Your task to perform on an android device: turn off smart reply in the gmail app Image 0: 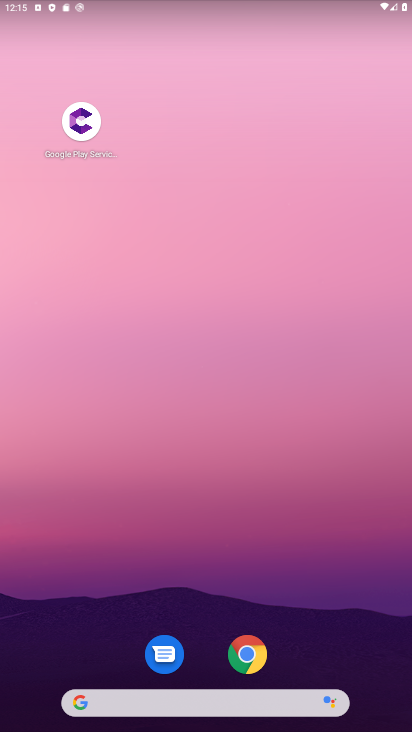
Step 0: drag from (200, 631) to (192, 159)
Your task to perform on an android device: turn off smart reply in the gmail app Image 1: 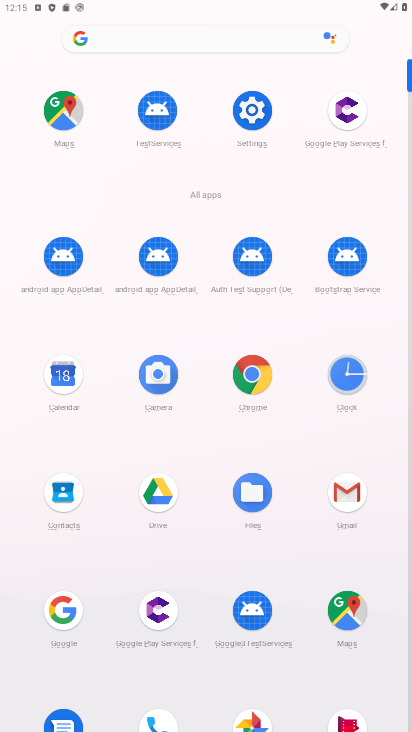
Step 1: click (358, 495)
Your task to perform on an android device: turn off smart reply in the gmail app Image 2: 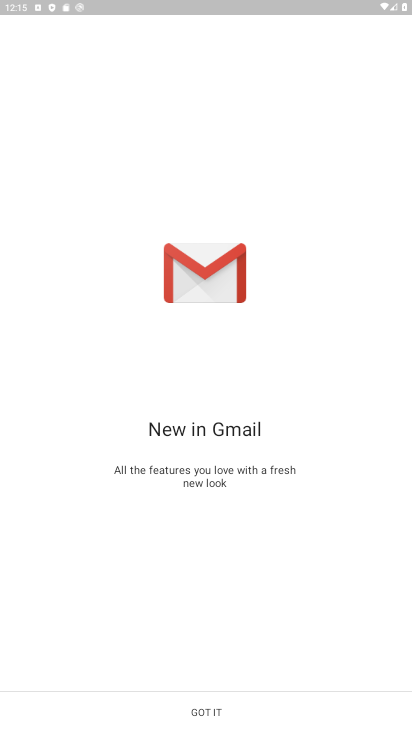
Step 2: click (244, 709)
Your task to perform on an android device: turn off smart reply in the gmail app Image 3: 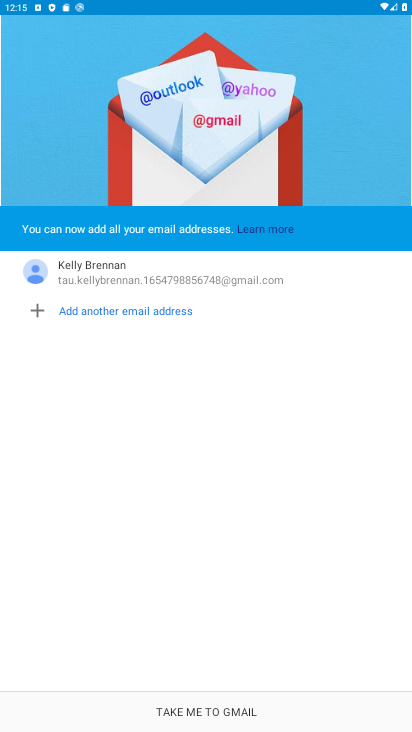
Step 3: click (248, 709)
Your task to perform on an android device: turn off smart reply in the gmail app Image 4: 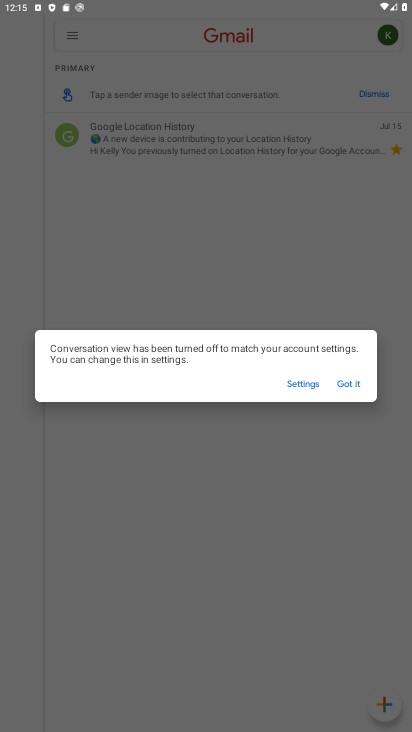
Step 4: click (343, 378)
Your task to perform on an android device: turn off smart reply in the gmail app Image 5: 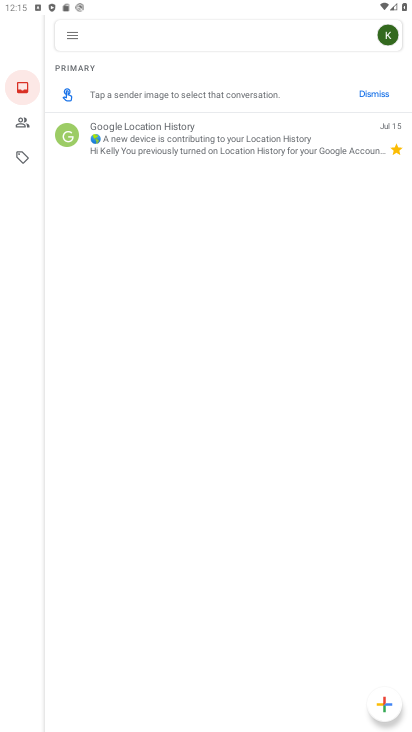
Step 5: click (64, 37)
Your task to perform on an android device: turn off smart reply in the gmail app Image 6: 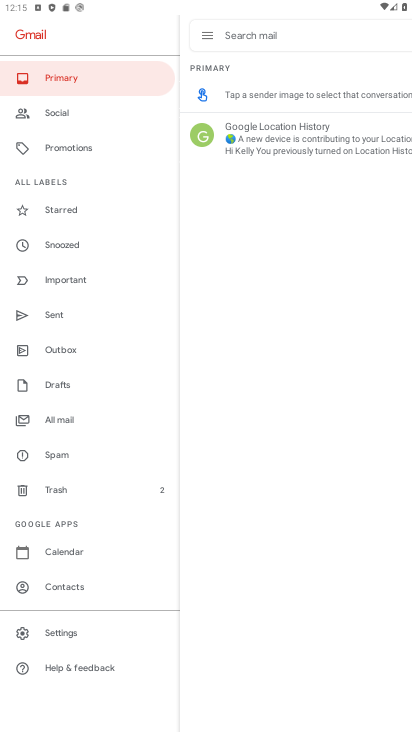
Step 6: click (96, 631)
Your task to perform on an android device: turn off smart reply in the gmail app Image 7: 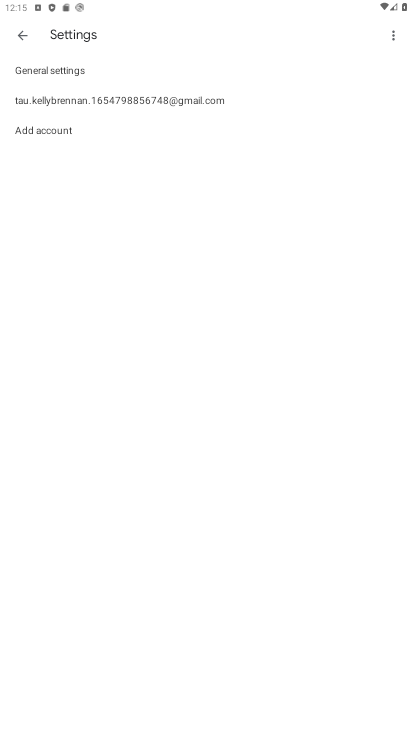
Step 7: click (129, 91)
Your task to perform on an android device: turn off smart reply in the gmail app Image 8: 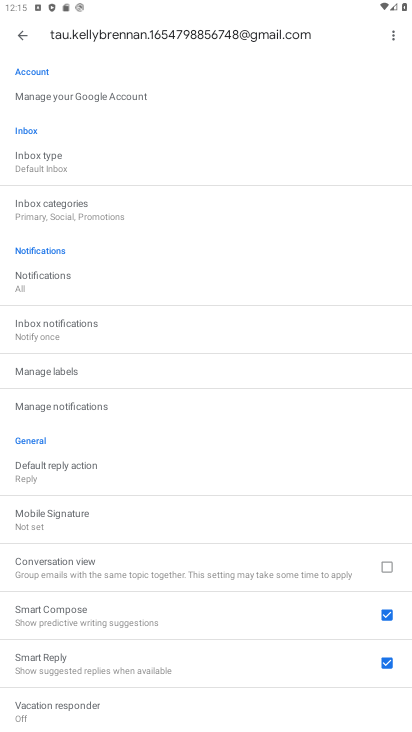
Step 8: drag from (135, 658) to (159, 401)
Your task to perform on an android device: turn off smart reply in the gmail app Image 9: 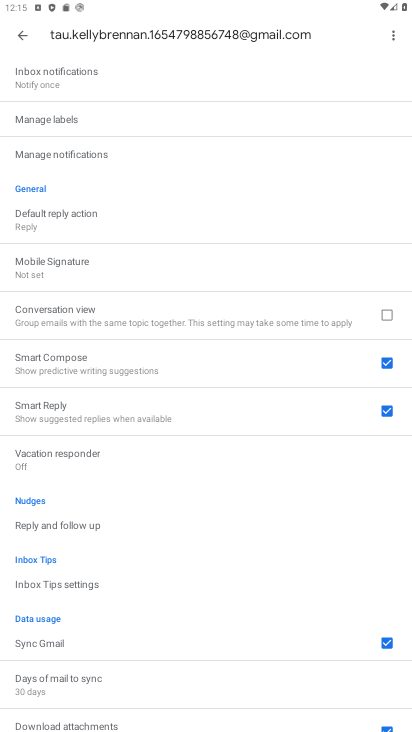
Step 9: click (385, 412)
Your task to perform on an android device: turn off smart reply in the gmail app Image 10: 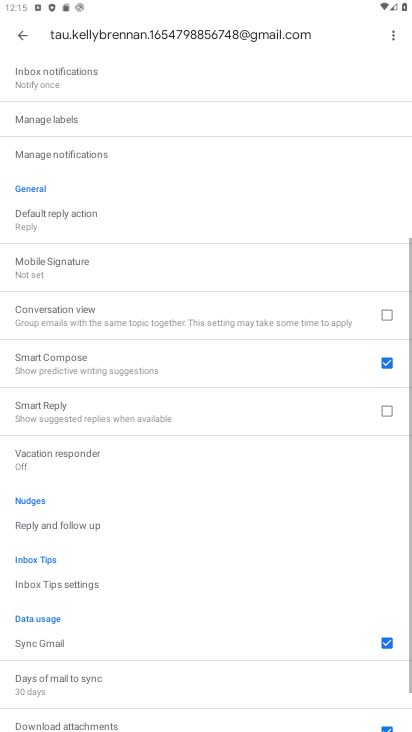
Step 10: task complete